Your task to perform on an android device: change alarm snooze length Image 0: 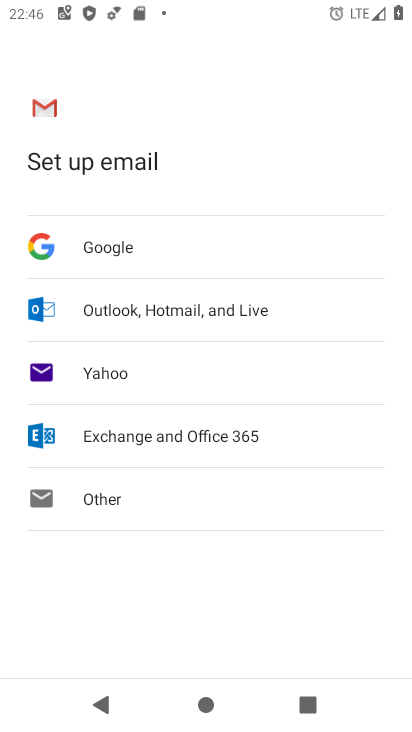
Step 0: press home button
Your task to perform on an android device: change alarm snooze length Image 1: 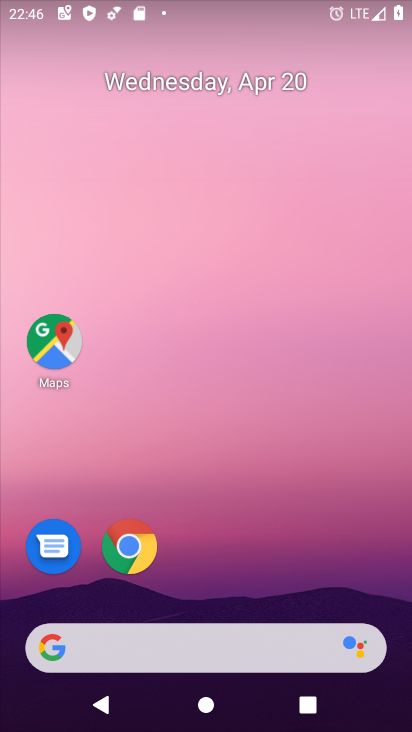
Step 1: drag from (251, 590) to (65, 85)
Your task to perform on an android device: change alarm snooze length Image 2: 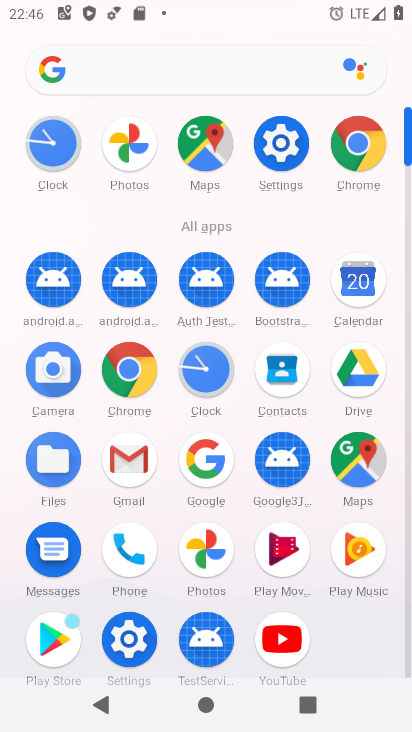
Step 2: click (204, 369)
Your task to perform on an android device: change alarm snooze length Image 3: 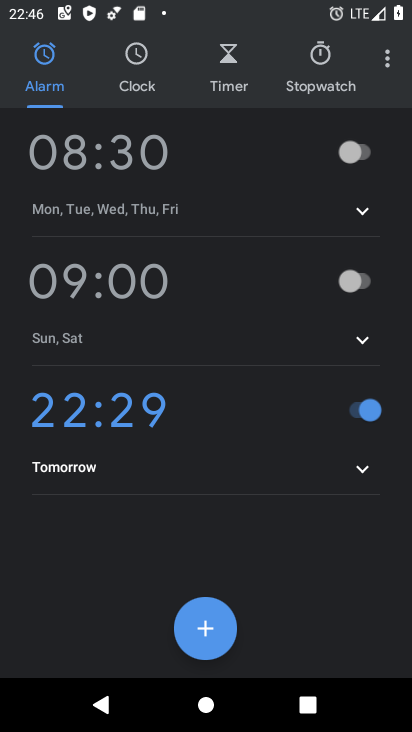
Step 3: click (390, 70)
Your task to perform on an android device: change alarm snooze length Image 4: 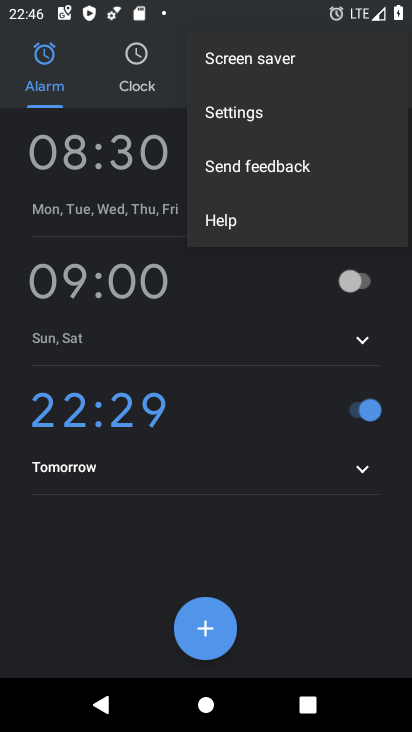
Step 4: click (255, 111)
Your task to perform on an android device: change alarm snooze length Image 5: 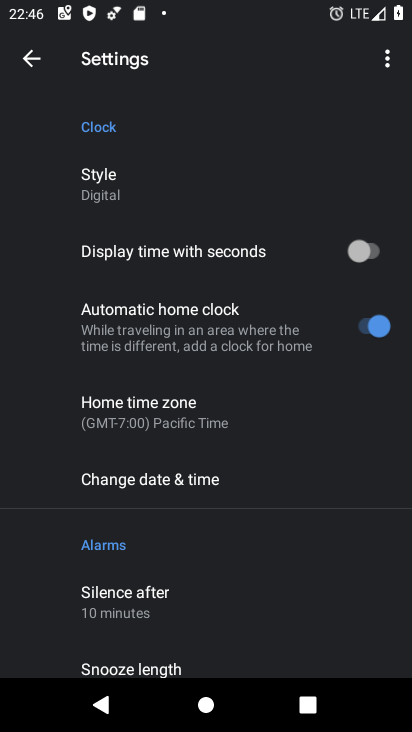
Step 5: drag from (184, 612) to (184, 324)
Your task to perform on an android device: change alarm snooze length Image 6: 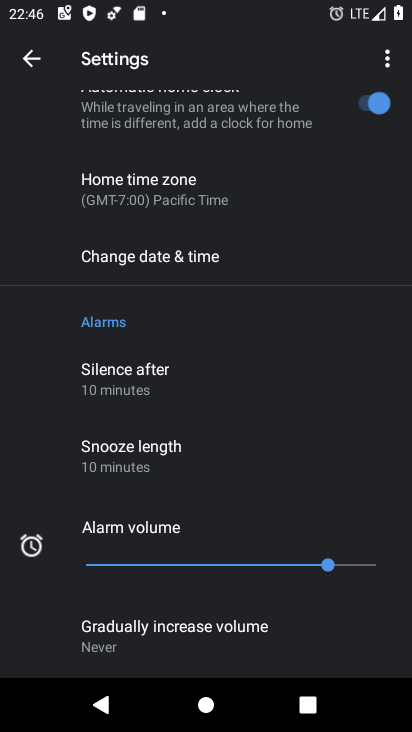
Step 6: click (127, 465)
Your task to perform on an android device: change alarm snooze length Image 7: 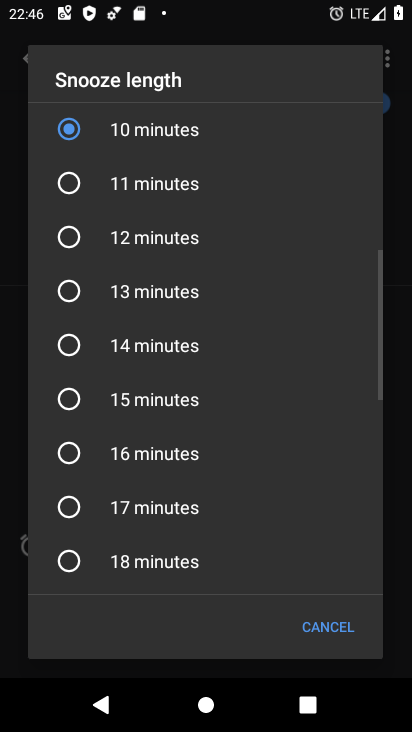
Step 7: click (136, 563)
Your task to perform on an android device: change alarm snooze length Image 8: 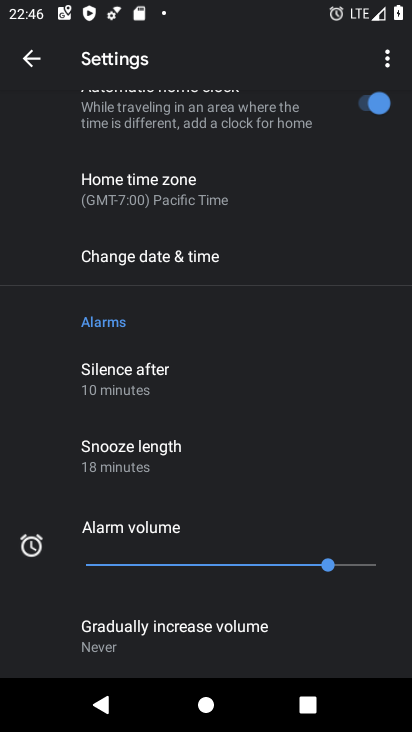
Step 8: task complete